Your task to perform on an android device: Go to Maps Image 0: 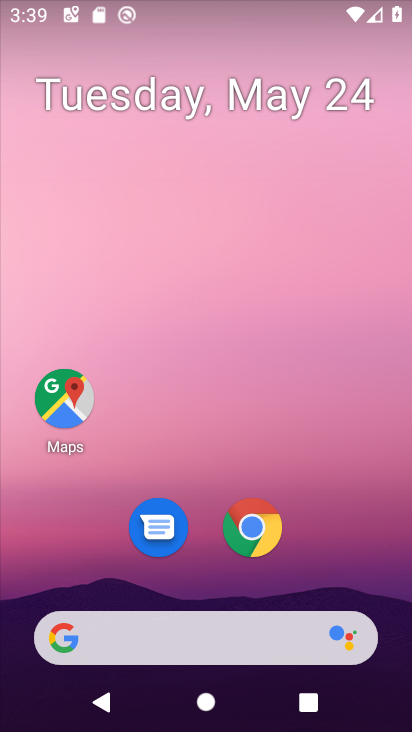
Step 0: click (62, 405)
Your task to perform on an android device: Go to Maps Image 1: 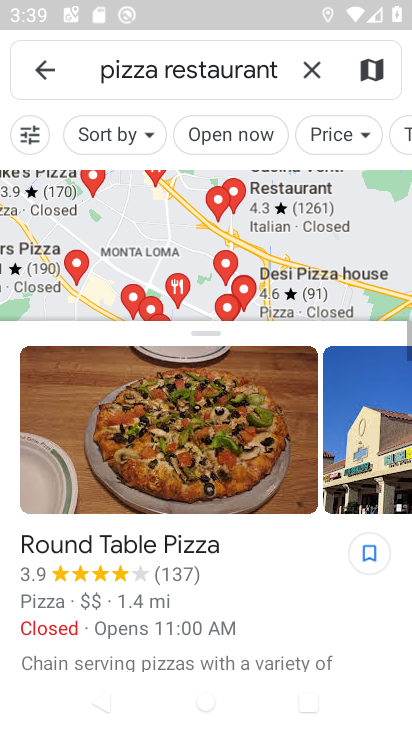
Step 1: task complete